Your task to perform on an android device: check data usage Image 0: 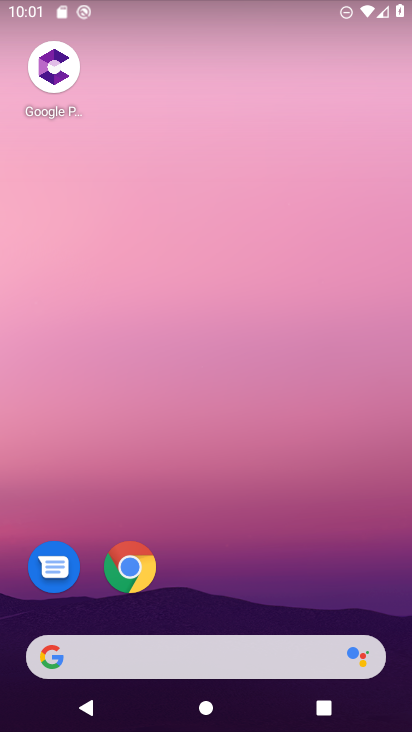
Step 0: drag from (171, 724) to (145, 68)
Your task to perform on an android device: check data usage Image 1: 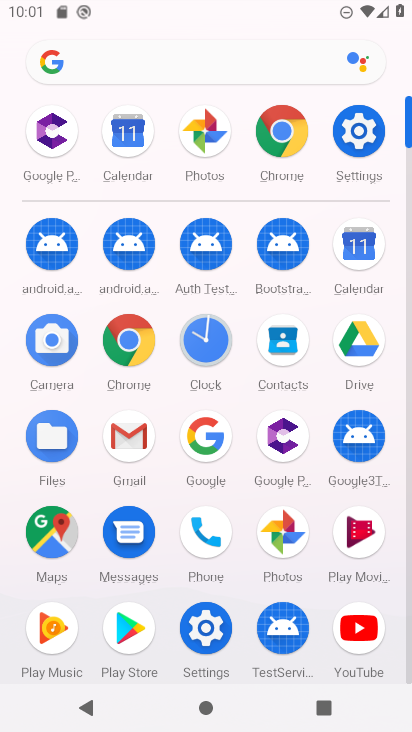
Step 1: click (357, 134)
Your task to perform on an android device: check data usage Image 2: 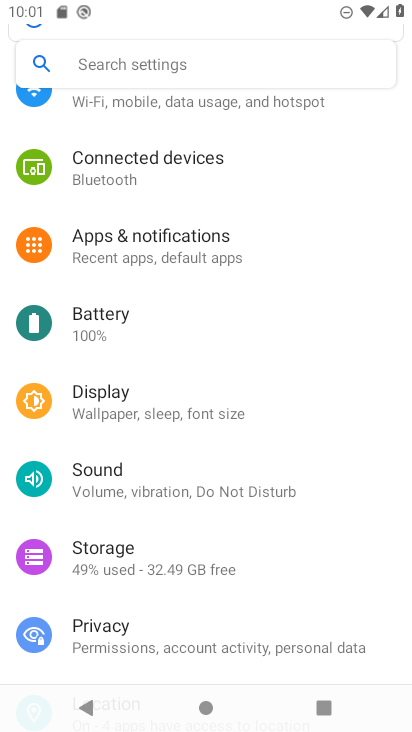
Step 2: click (296, 110)
Your task to perform on an android device: check data usage Image 3: 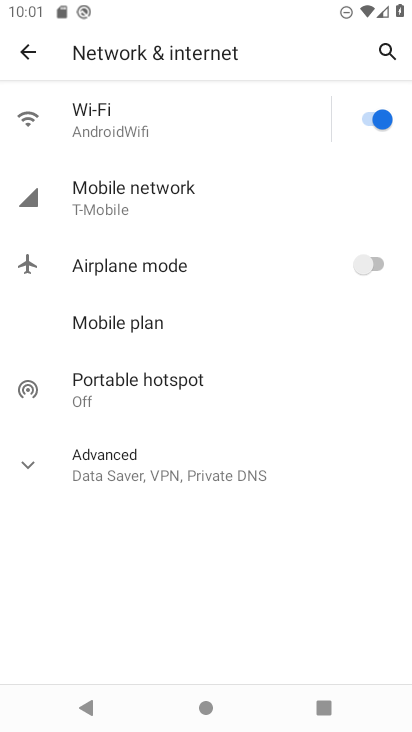
Step 3: click (156, 201)
Your task to perform on an android device: check data usage Image 4: 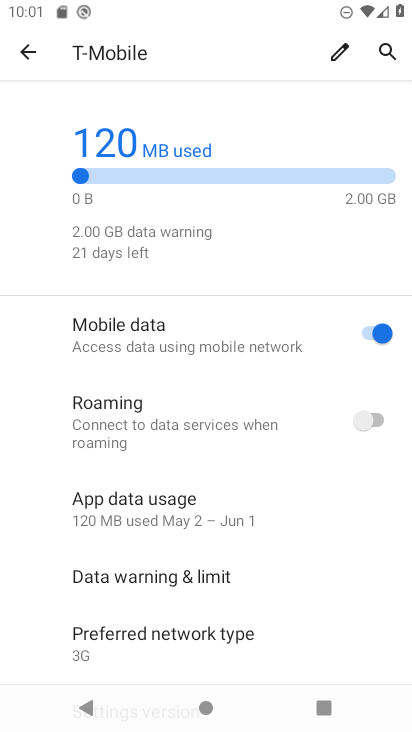
Step 4: task complete